Your task to perform on an android device: Go to settings Image 0: 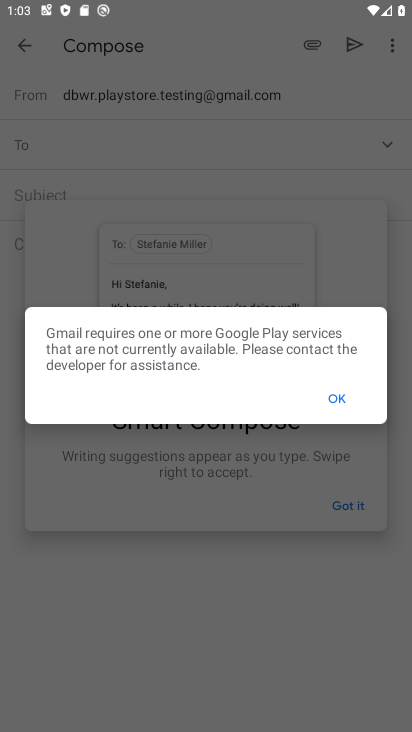
Step 0: click (343, 398)
Your task to perform on an android device: Go to settings Image 1: 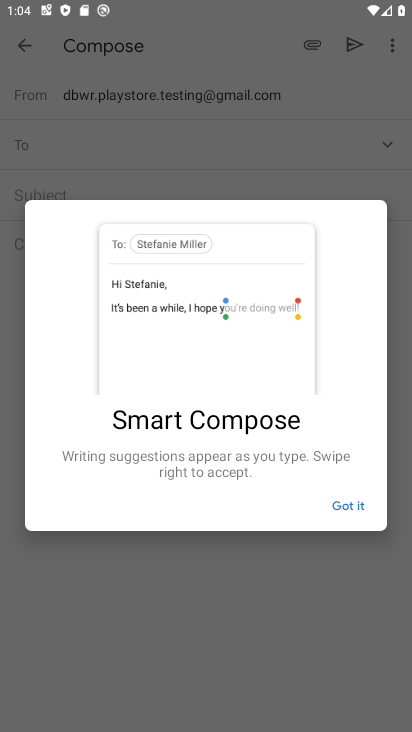
Step 1: press home button
Your task to perform on an android device: Go to settings Image 2: 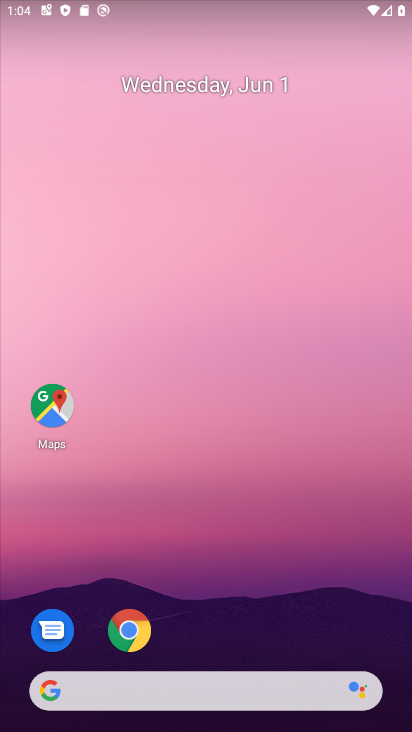
Step 2: drag from (276, 632) to (279, 121)
Your task to perform on an android device: Go to settings Image 3: 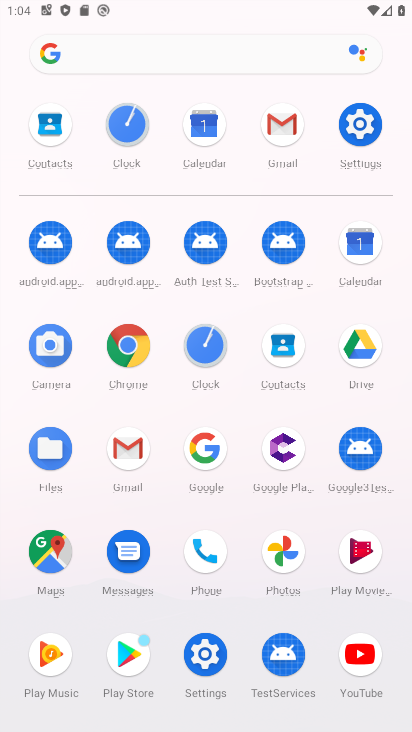
Step 3: click (362, 125)
Your task to perform on an android device: Go to settings Image 4: 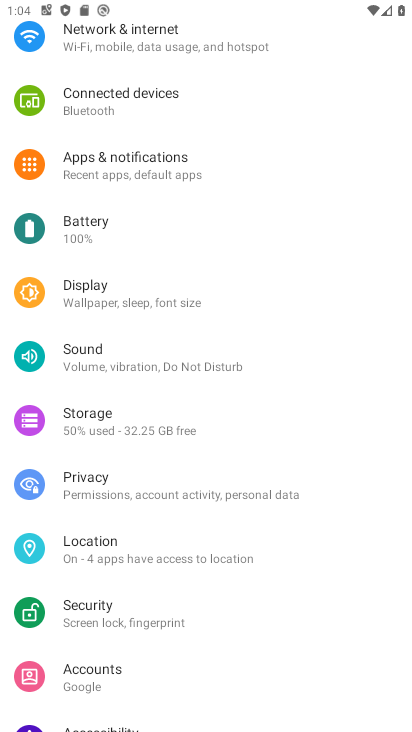
Step 4: task complete